Your task to perform on an android device: Search for the best-rated coffee table on Crate & Barrel Image 0: 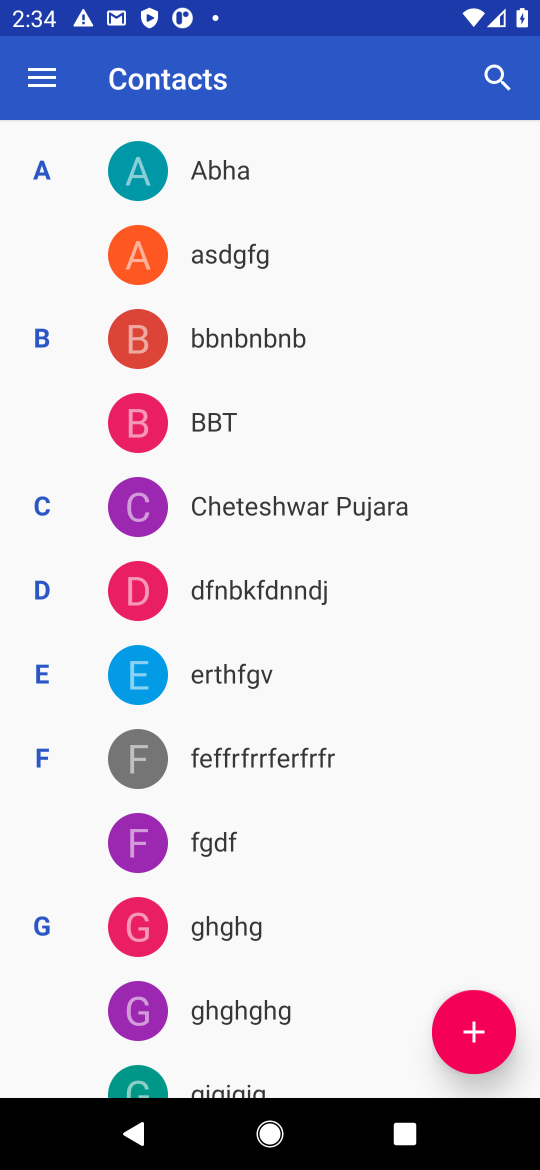
Step 0: press home button
Your task to perform on an android device: Search for the best-rated coffee table on Crate & Barrel Image 1: 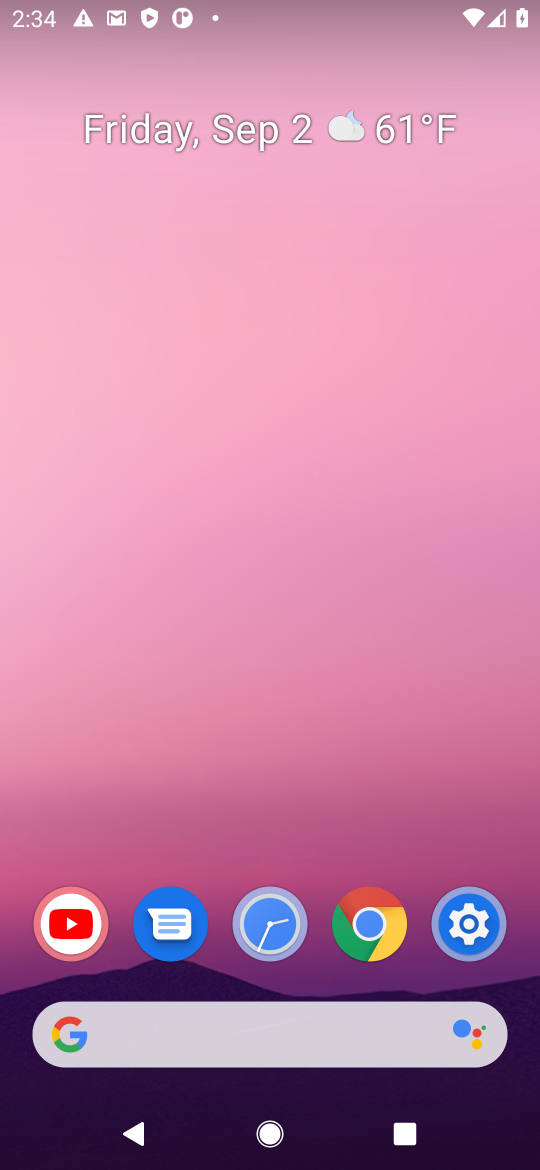
Step 1: click (369, 1041)
Your task to perform on an android device: Search for the best-rated coffee table on Crate & Barrel Image 2: 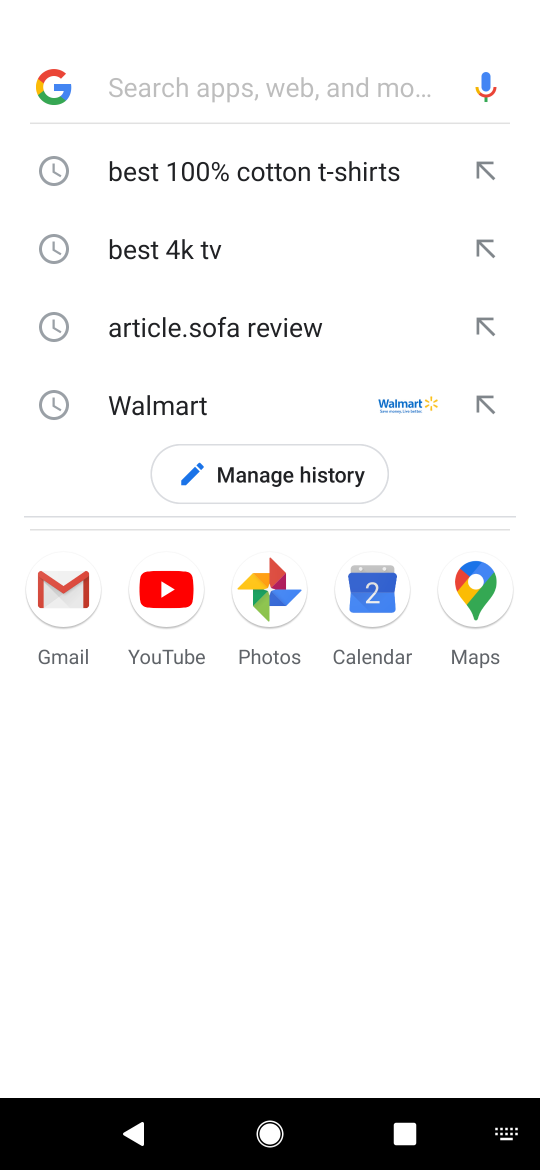
Step 2: press enter
Your task to perform on an android device: Search for the best-rated coffee table on Crate & Barrel Image 3: 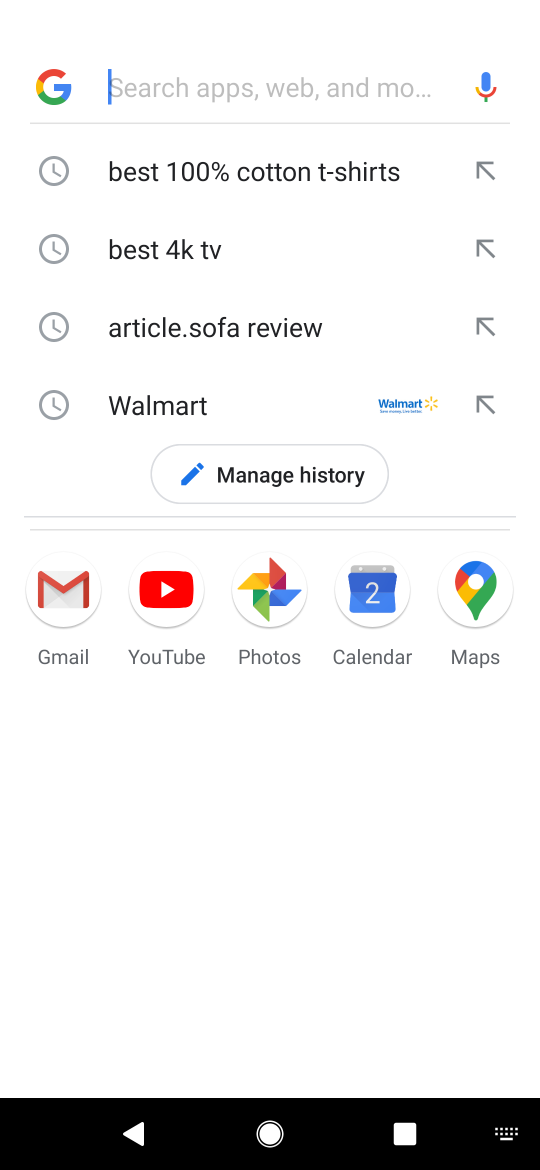
Step 3: type "crate barrel "
Your task to perform on an android device: Search for the best-rated coffee table on Crate & Barrel Image 4: 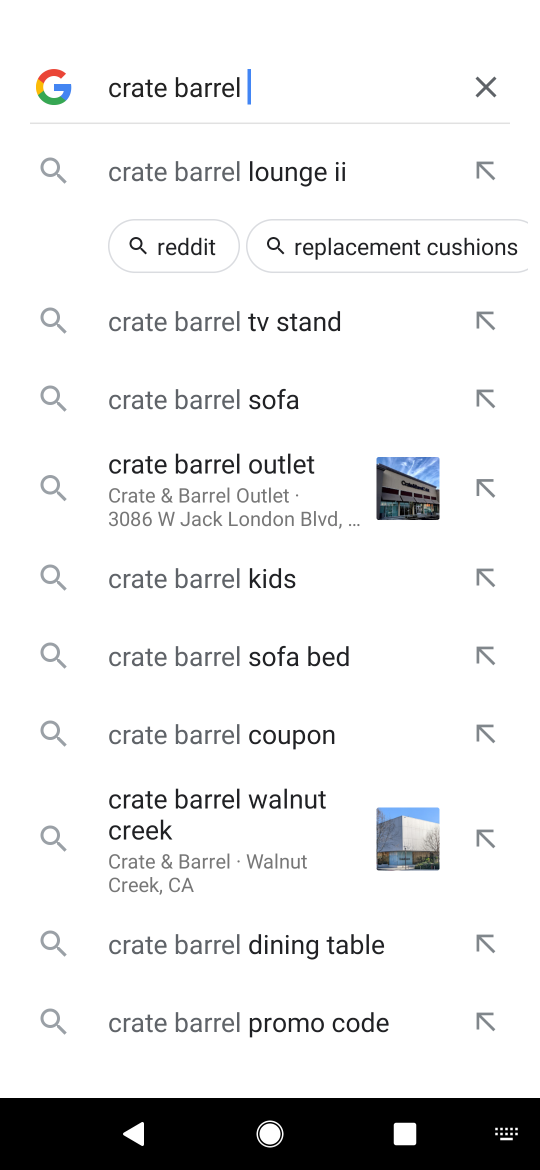
Step 4: press enter
Your task to perform on an android device: Search for the best-rated coffee table on Crate & Barrel Image 5: 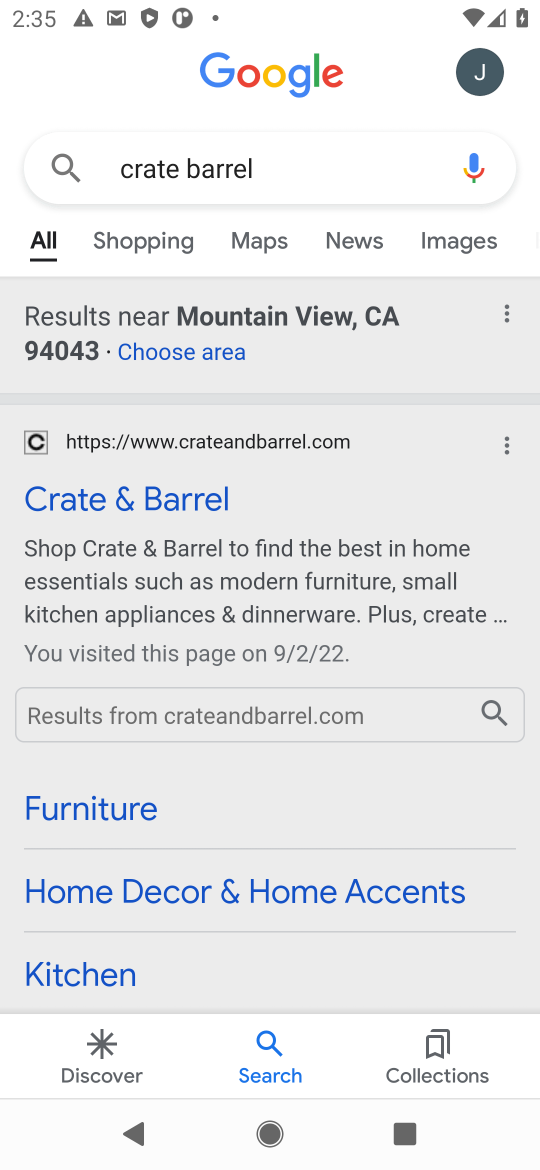
Step 5: click (200, 498)
Your task to perform on an android device: Search for the best-rated coffee table on Crate & Barrel Image 6: 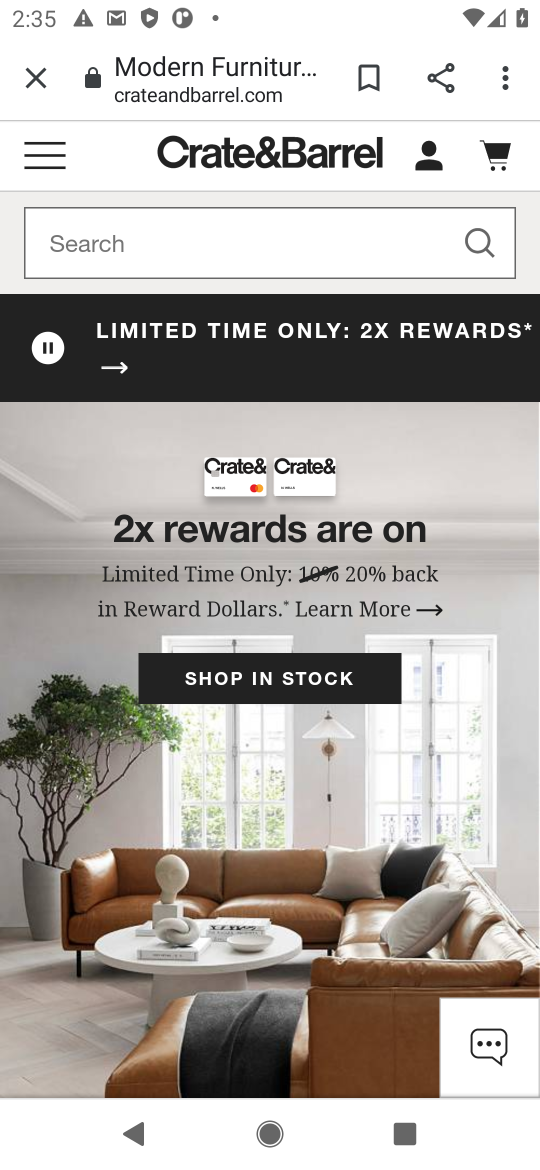
Step 6: click (290, 243)
Your task to perform on an android device: Search for the best-rated coffee table on Crate & Barrel Image 7: 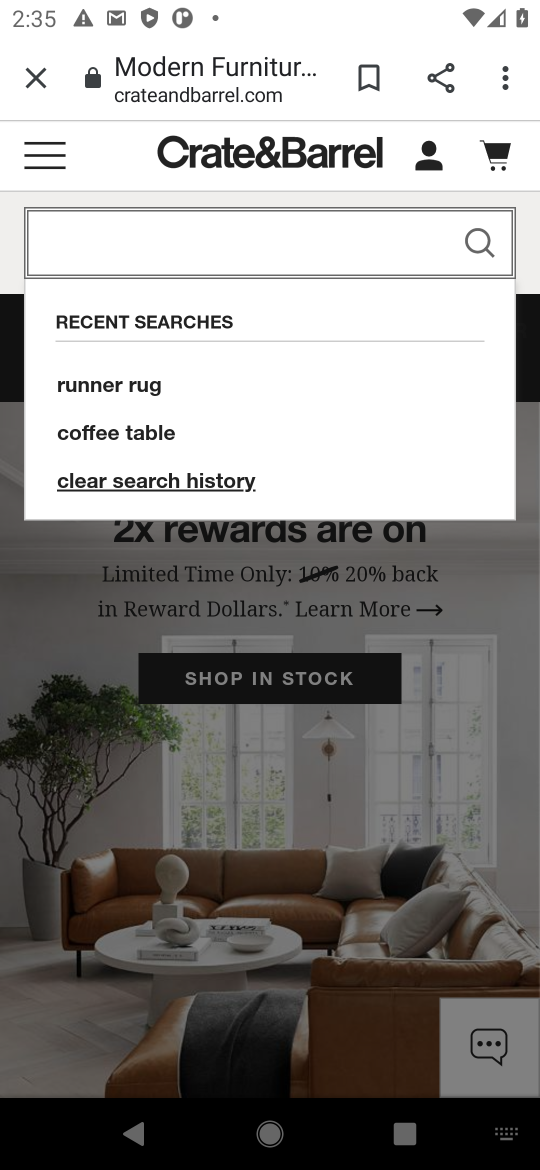
Step 7: click (129, 423)
Your task to perform on an android device: Search for the best-rated coffee table on Crate & Barrel Image 8: 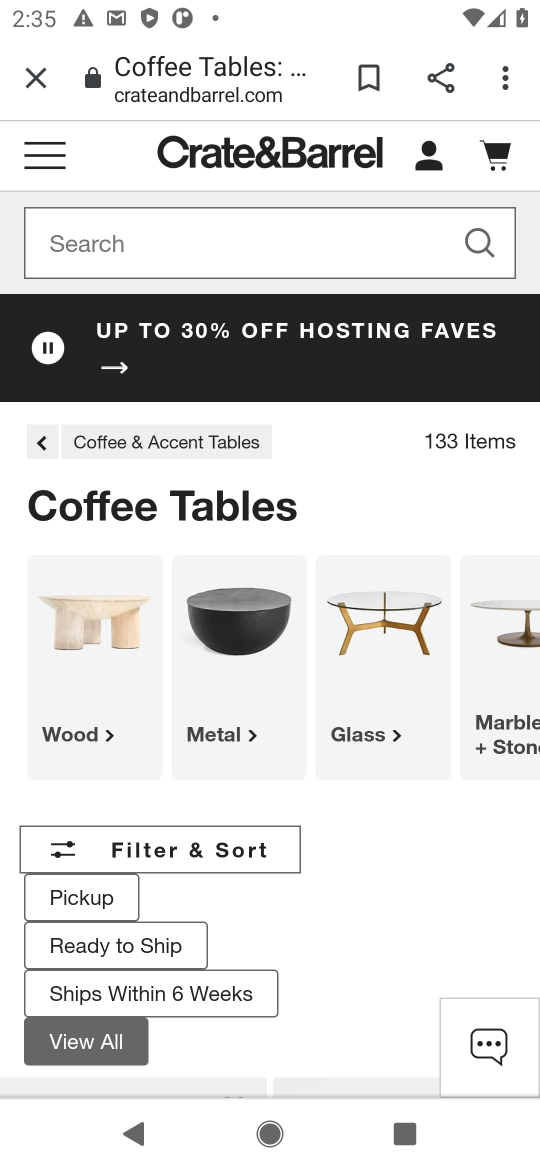
Step 8: task complete